Your task to perform on an android device: check android version Image 0: 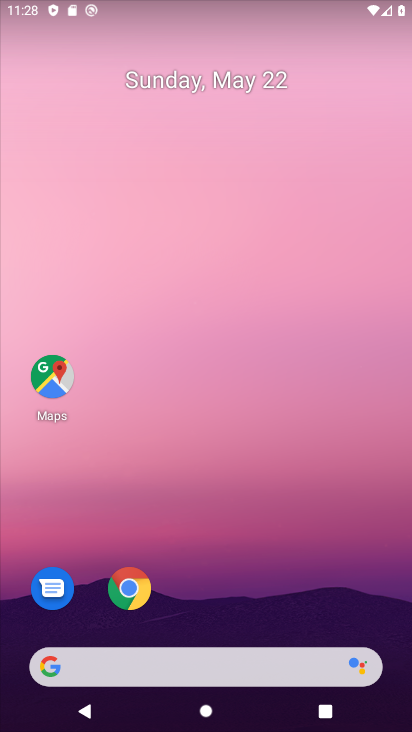
Step 0: drag from (239, 682) to (215, 235)
Your task to perform on an android device: check android version Image 1: 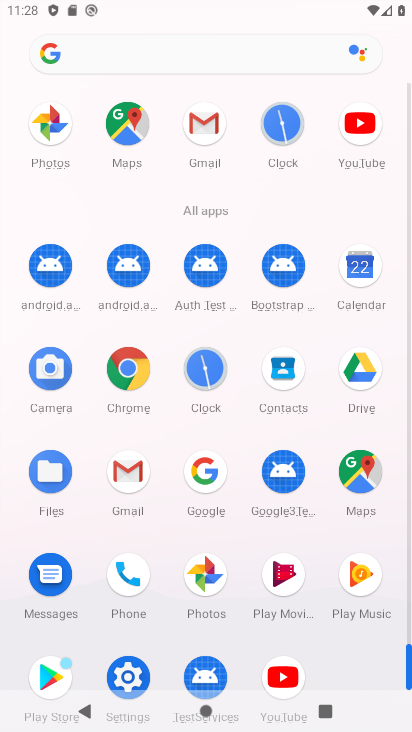
Step 1: drag from (141, 572) to (141, 177)
Your task to perform on an android device: check android version Image 2: 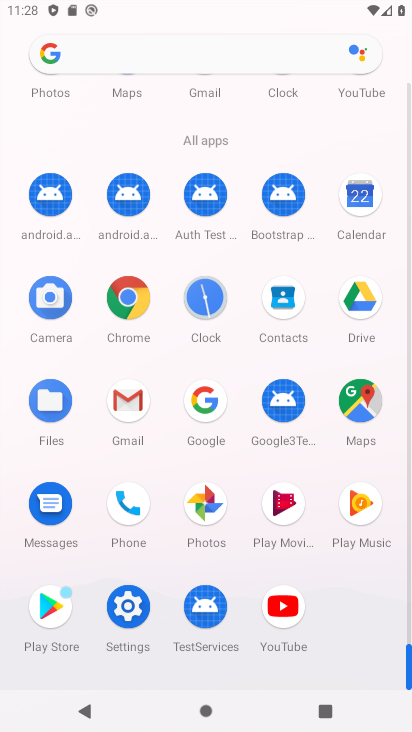
Step 2: drag from (142, 250) to (142, 77)
Your task to perform on an android device: check android version Image 3: 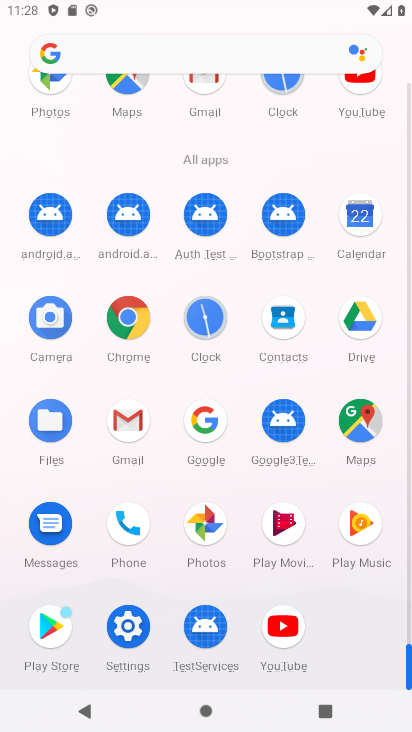
Step 3: click (124, 633)
Your task to perform on an android device: check android version Image 4: 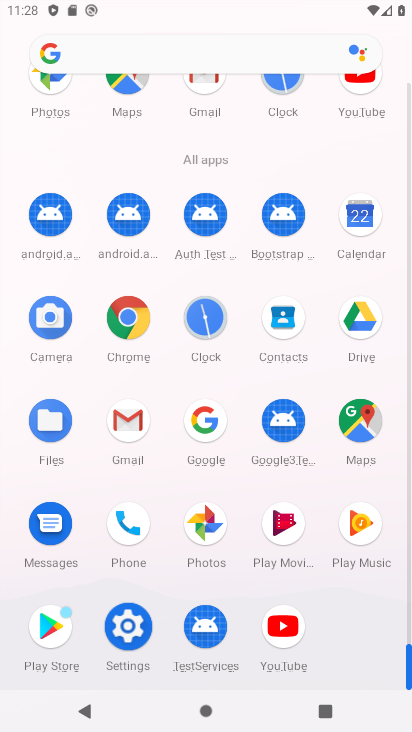
Step 4: click (124, 633)
Your task to perform on an android device: check android version Image 5: 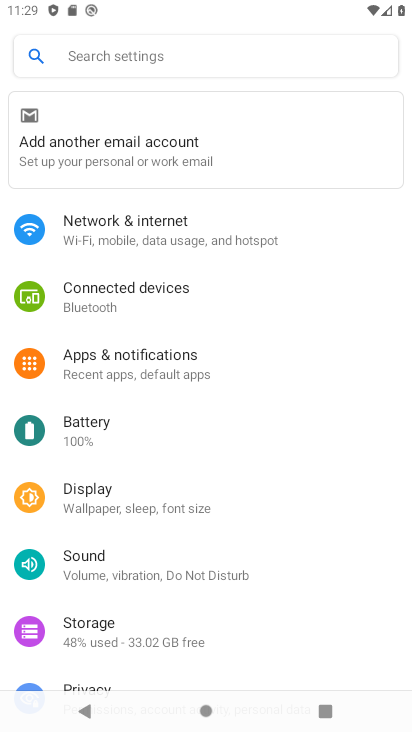
Step 5: drag from (155, 498) to (142, 20)
Your task to perform on an android device: check android version Image 6: 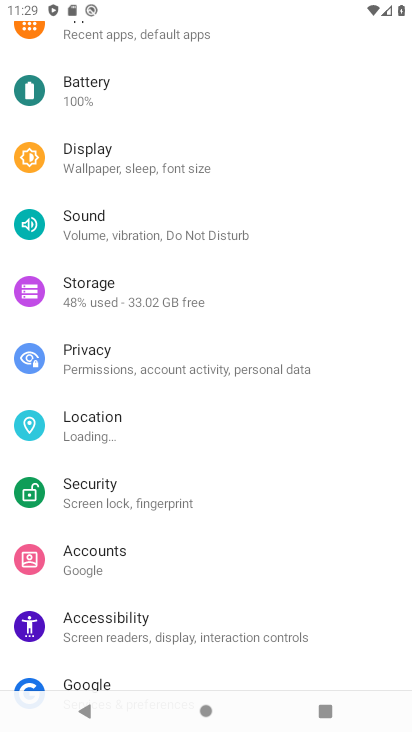
Step 6: drag from (163, 423) to (164, 60)
Your task to perform on an android device: check android version Image 7: 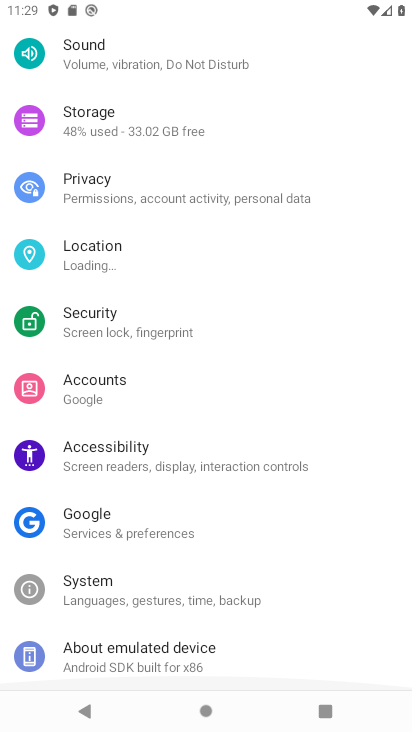
Step 7: drag from (200, 322) to (236, 37)
Your task to perform on an android device: check android version Image 8: 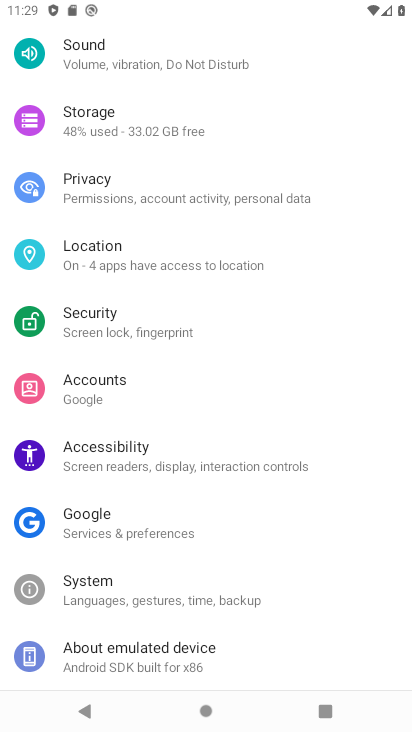
Step 8: drag from (213, 595) to (185, 178)
Your task to perform on an android device: check android version Image 9: 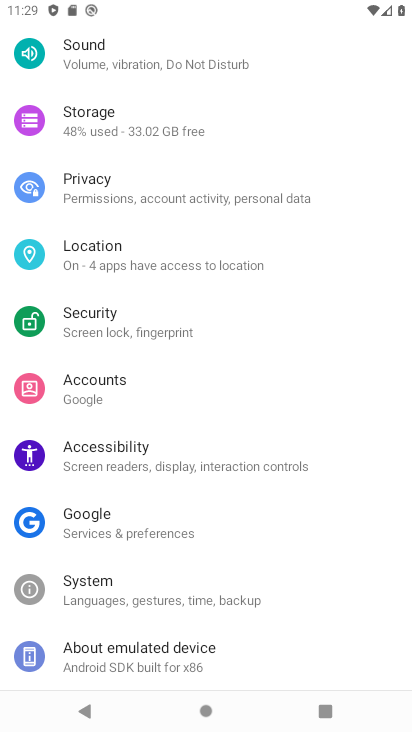
Step 9: drag from (136, 481) to (132, 350)
Your task to perform on an android device: check android version Image 10: 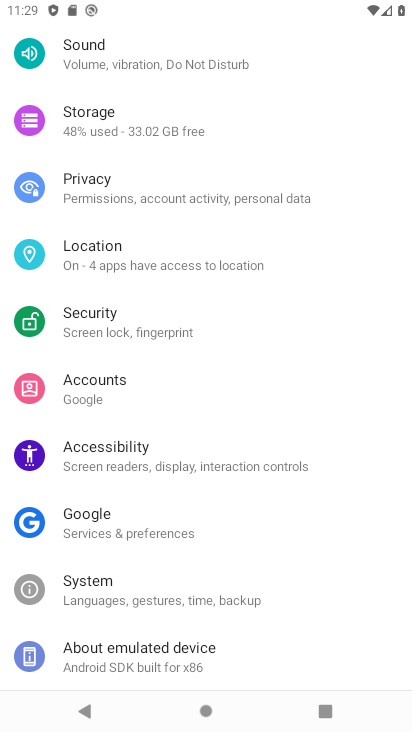
Step 10: drag from (149, 493) to (129, 282)
Your task to perform on an android device: check android version Image 11: 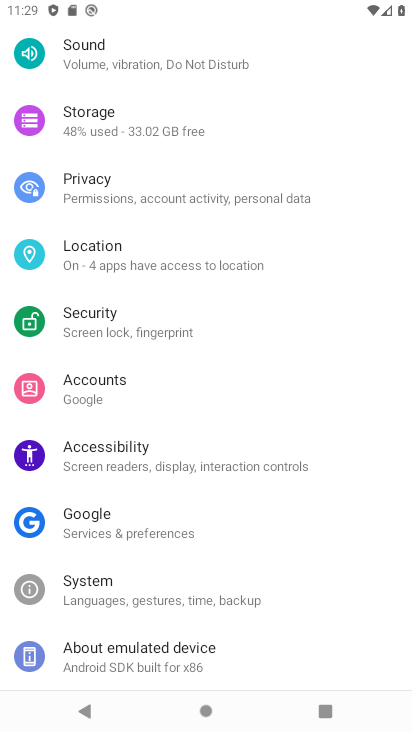
Step 11: drag from (159, 467) to (144, 201)
Your task to perform on an android device: check android version Image 12: 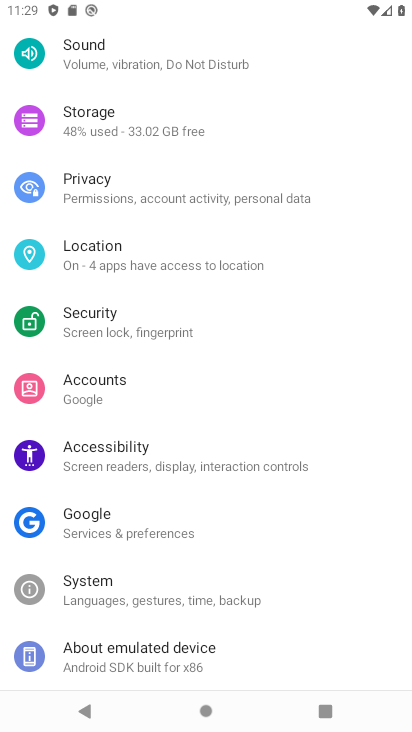
Step 12: drag from (156, 310) to (156, 100)
Your task to perform on an android device: check android version Image 13: 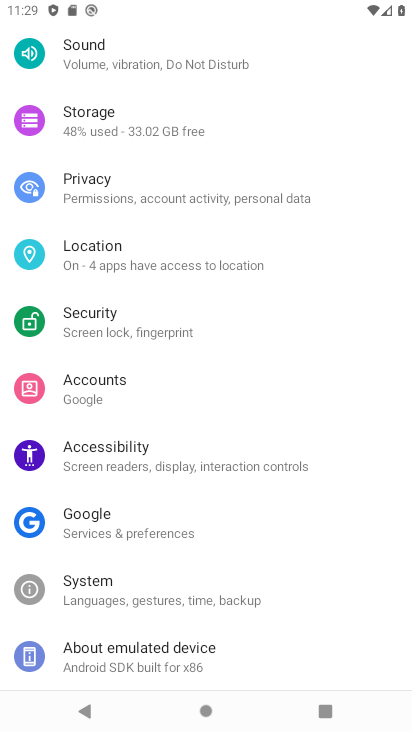
Step 13: click (162, 658)
Your task to perform on an android device: check android version Image 14: 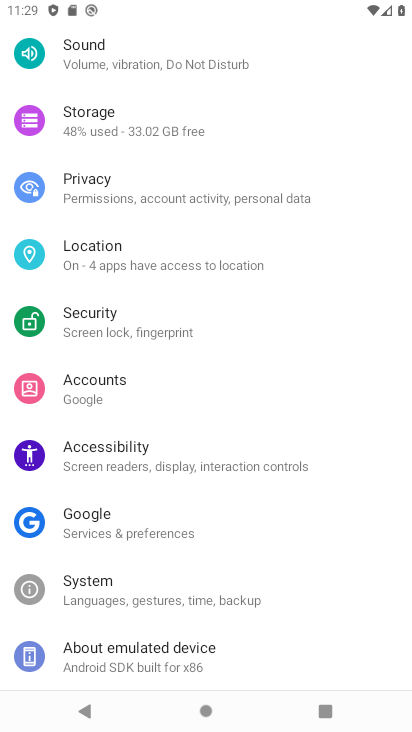
Step 14: click (169, 664)
Your task to perform on an android device: check android version Image 15: 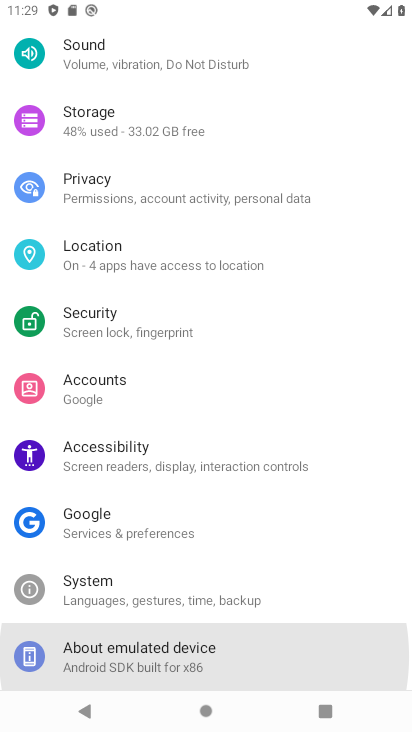
Step 15: click (169, 664)
Your task to perform on an android device: check android version Image 16: 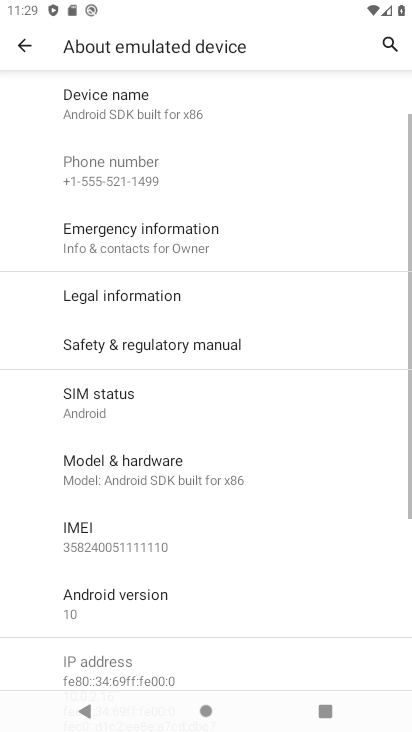
Step 16: task complete